Your task to perform on an android device: toggle improve location accuracy Image 0: 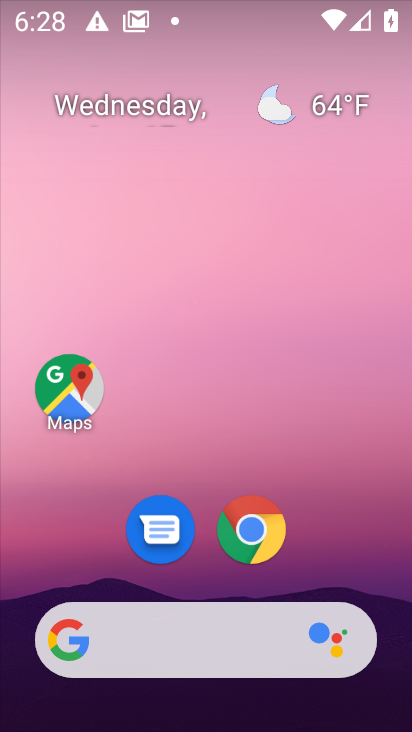
Step 0: drag from (204, 387) to (204, 55)
Your task to perform on an android device: toggle improve location accuracy Image 1: 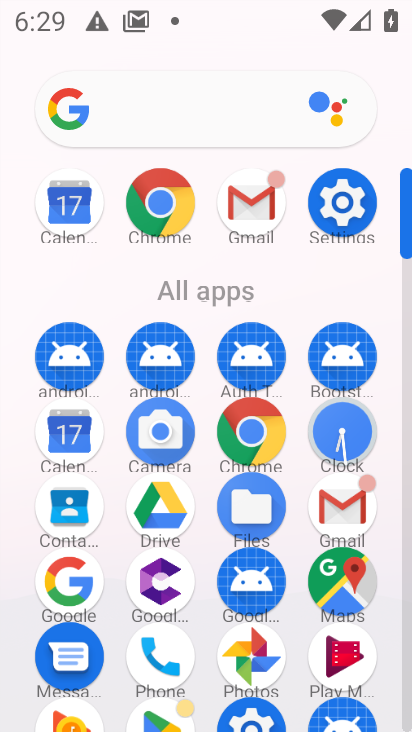
Step 1: click (340, 207)
Your task to perform on an android device: toggle improve location accuracy Image 2: 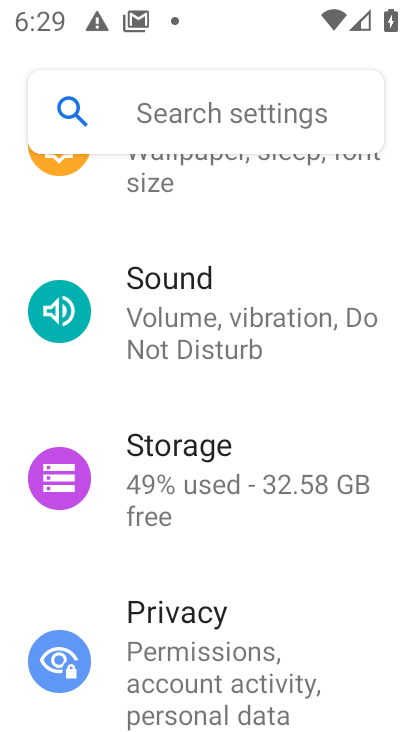
Step 2: click (247, 259)
Your task to perform on an android device: toggle improve location accuracy Image 3: 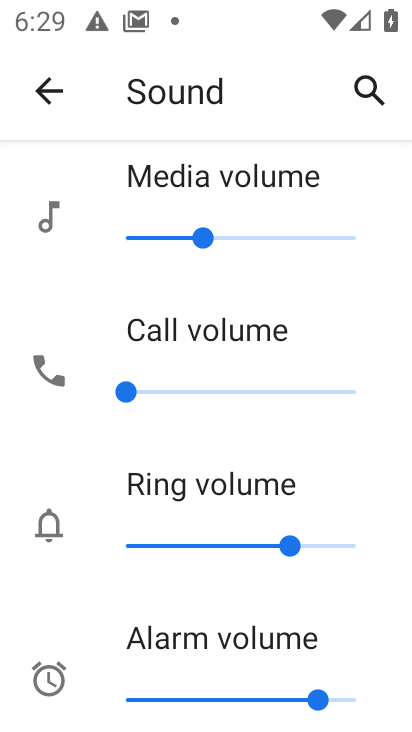
Step 3: click (38, 88)
Your task to perform on an android device: toggle improve location accuracy Image 4: 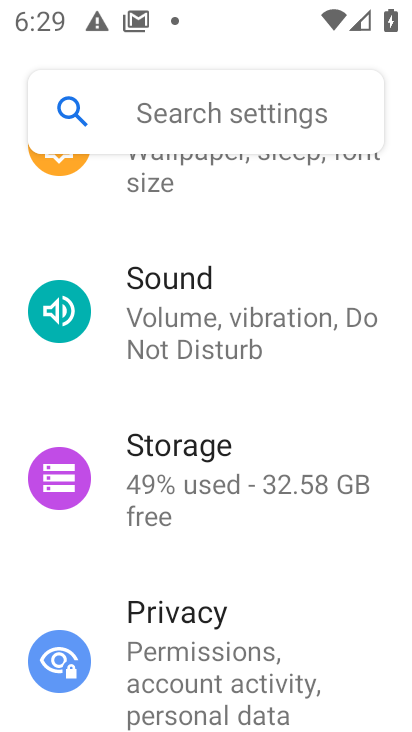
Step 4: drag from (261, 398) to (284, 635)
Your task to perform on an android device: toggle improve location accuracy Image 5: 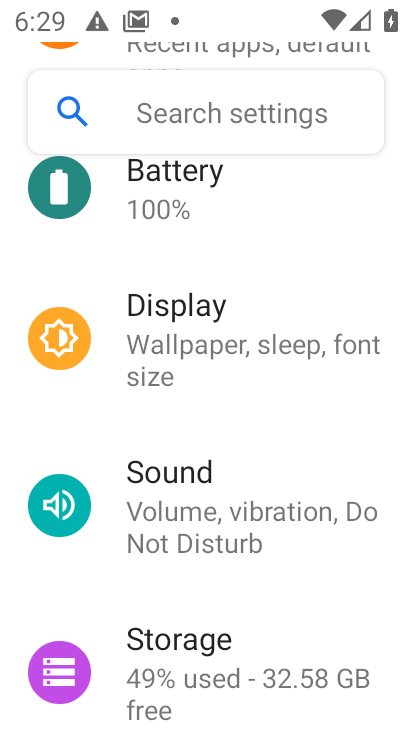
Step 5: drag from (273, 579) to (248, 349)
Your task to perform on an android device: toggle improve location accuracy Image 6: 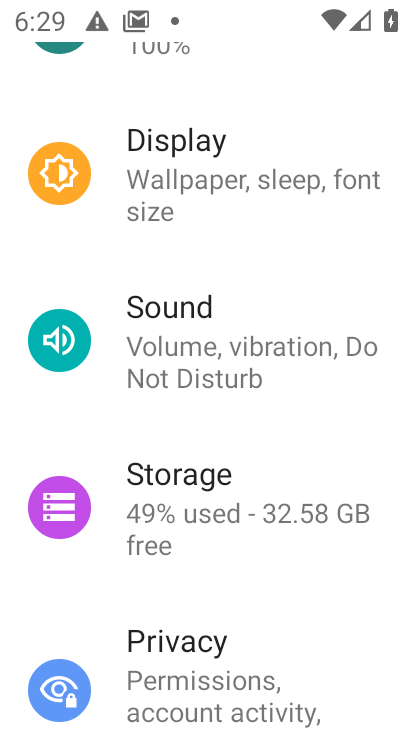
Step 6: drag from (238, 567) to (211, 94)
Your task to perform on an android device: toggle improve location accuracy Image 7: 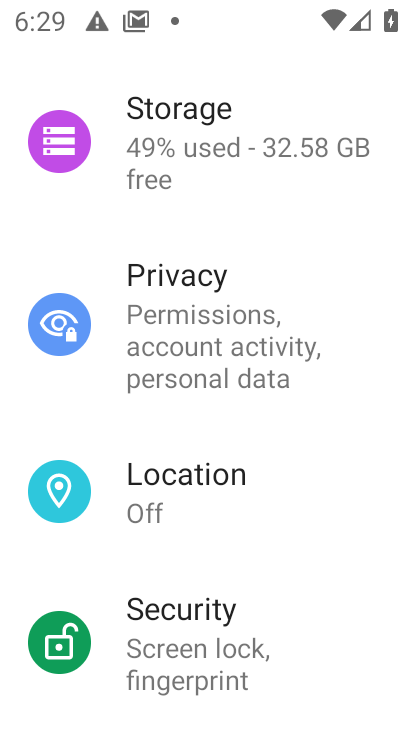
Step 7: drag from (289, 657) to (289, 302)
Your task to perform on an android device: toggle improve location accuracy Image 8: 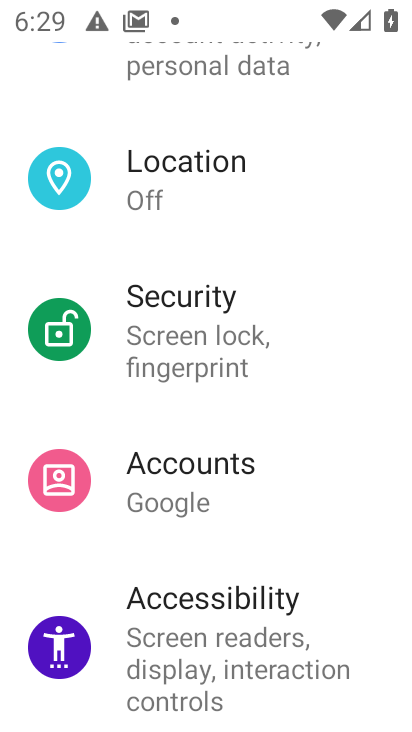
Step 8: drag from (271, 664) to (248, 327)
Your task to perform on an android device: toggle improve location accuracy Image 9: 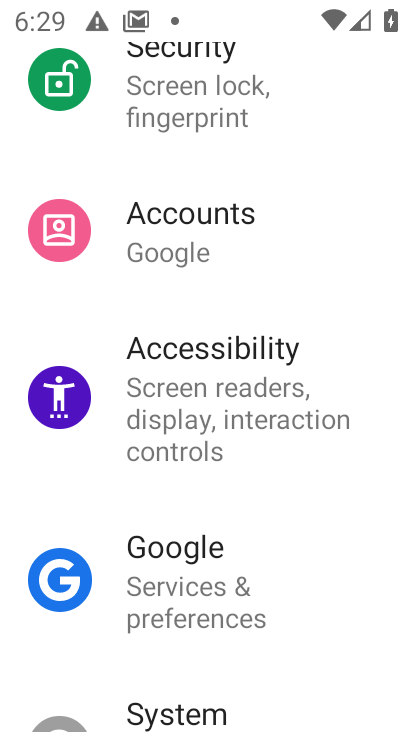
Step 9: drag from (266, 665) to (266, 438)
Your task to perform on an android device: toggle improve location accuracy Image 10: 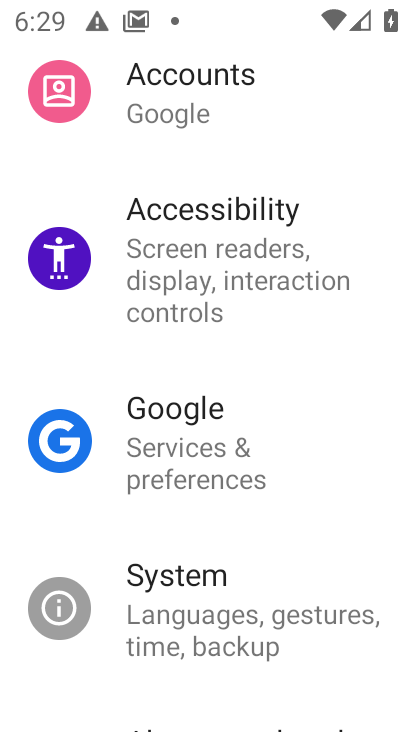
Step 10: drag from (277, 498) to (276, 243)
Your task to perform on an android device: toggle improve location accuracy Image 11: 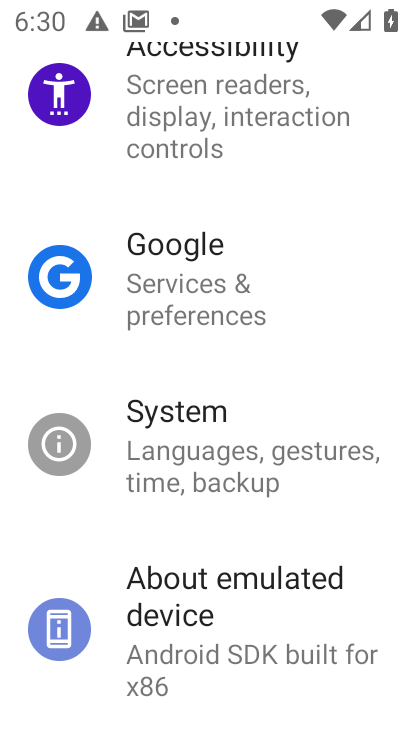
Step 11: drag from (276, 254) to (286, 507)
Your task to perform on an android device: toggle improve location accuracy Image 12: 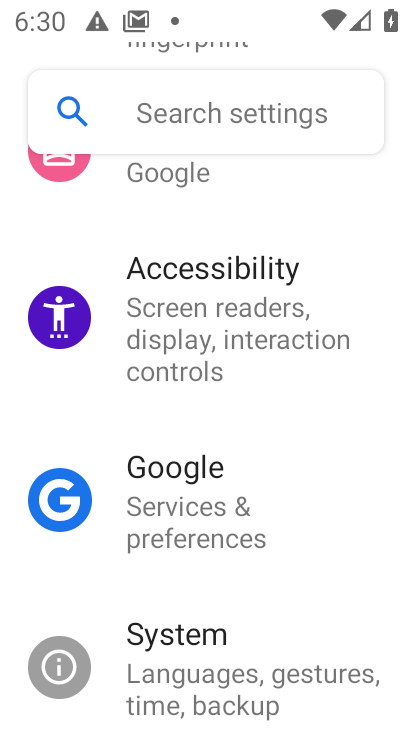
Step 12: drag from (275, 203) to (295, 529)
Your task to perform on an android device: toggle improve location accuracy Image 13: 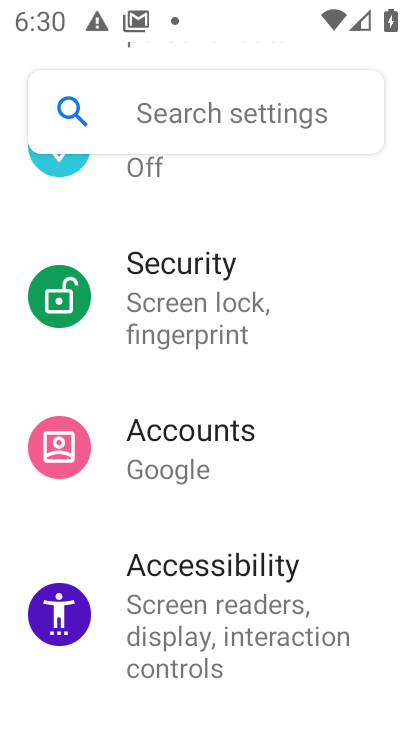
Step 13: drag from (275, 255) to (275, 450)
Your task to perform on an android device: toggle improve location accuracy Image 14: 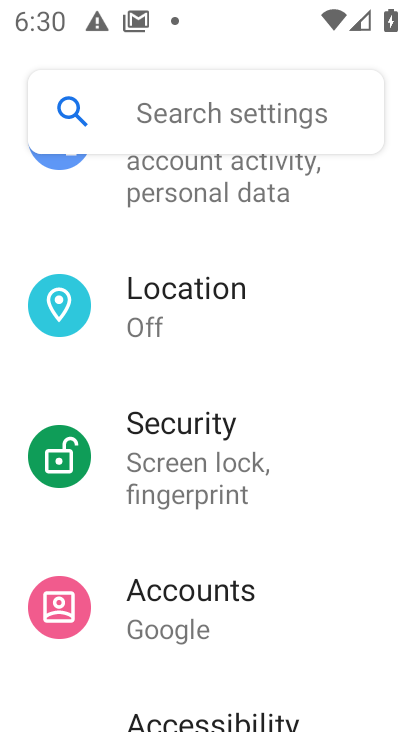
Step 14: click (166, 316)
Your task to perform on an android device: toggle improve location accuracy Image 15: 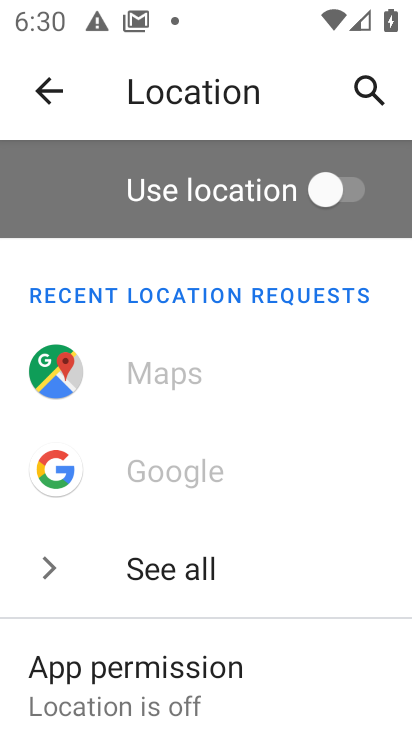
Step 15: drag from (274, 691) to (259, 374)
Your task to perform on an android device: toggle improve location accuracy Image 16: 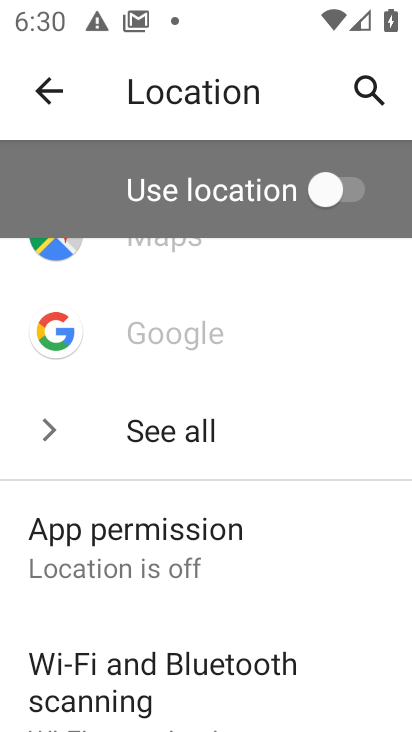
Step 16: drag from (267, 694) to (286, 391)
Your task to perform on an android device: toggle improve location accuracy Image 17: 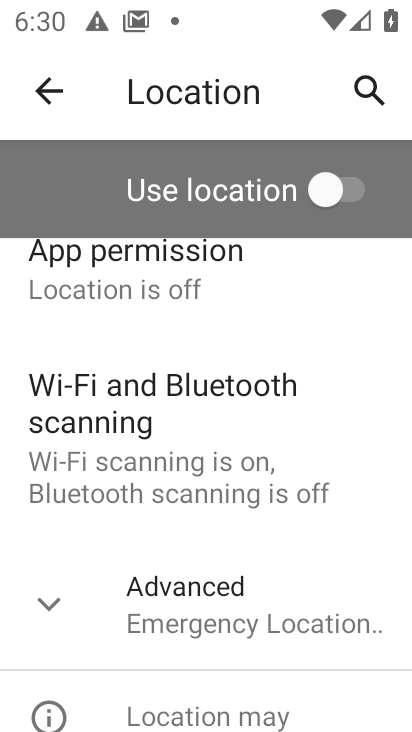
Step 17: click (159, 609)
Your task to perform on an android device: toggle improve location accuracy Image 18: 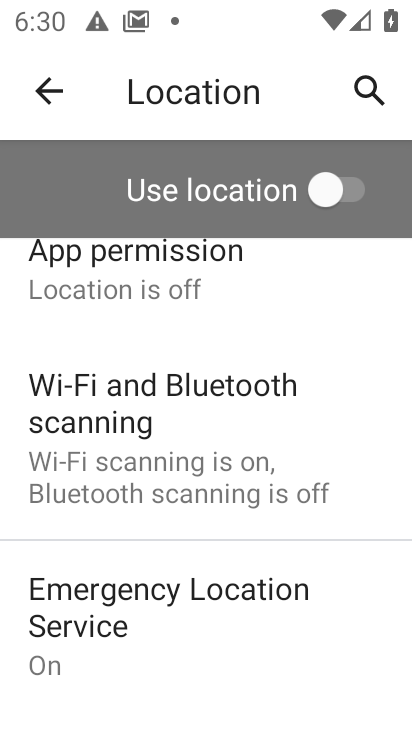
Step 18: drag from (270, 628) to (244, 400)
Your task to perform on an android device: toggle improve location accuracy Image 19: 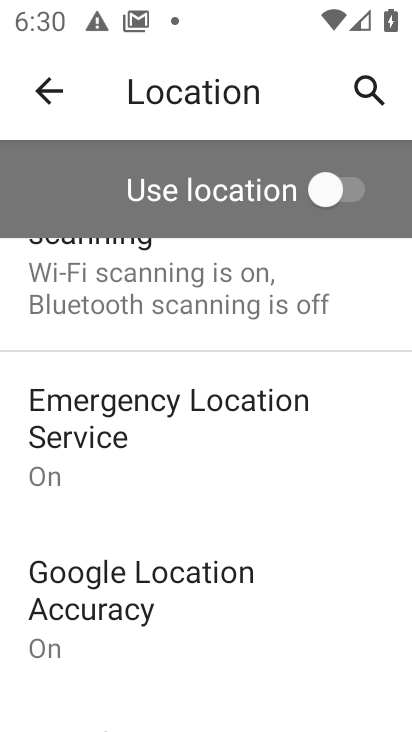
Step 19: click (108, 597)
Your task to perform on an android device: toggle improve location accuracy Image 20: 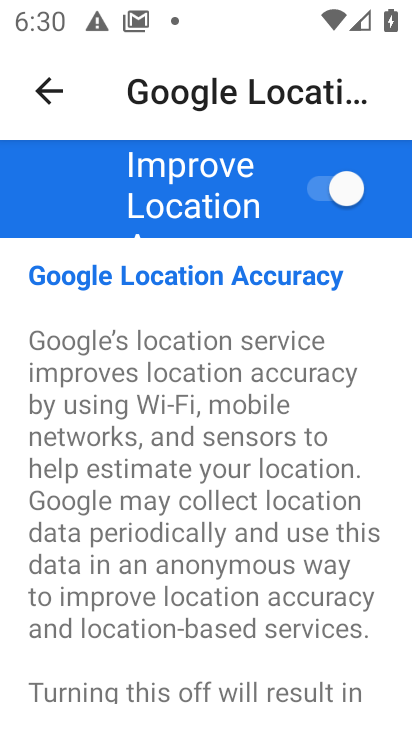
Step 20: click (320, 183)
Your task to perform on an android device: toggle improve location accuracy Image 21: 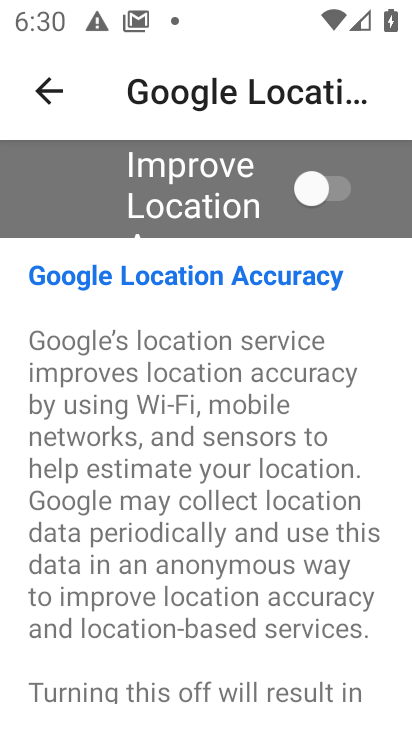
Step 21: task complete